Your task to perform on an android device: When is my next appointment? Image 0: 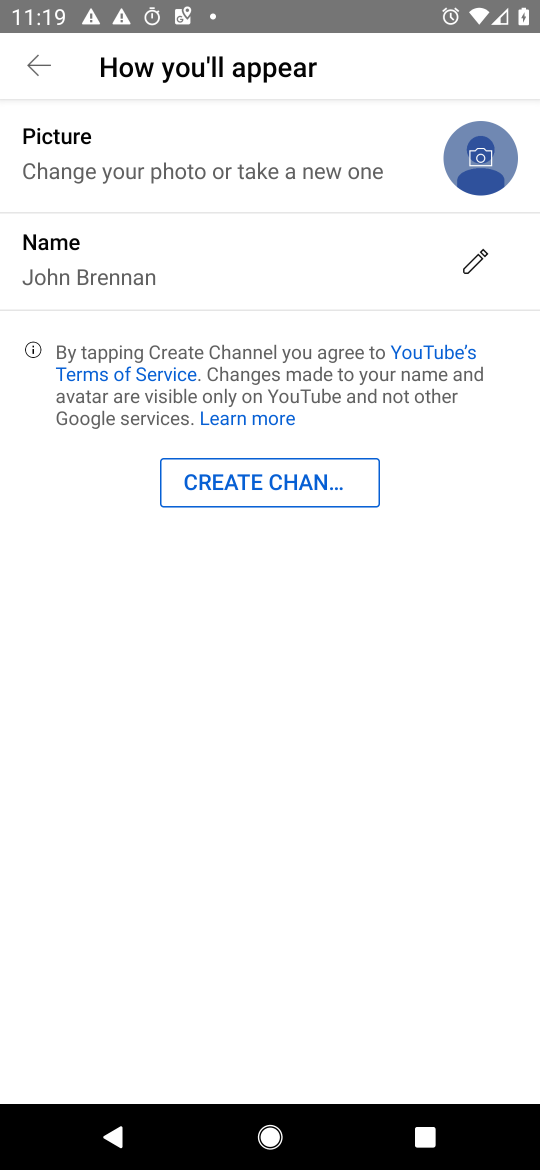
Step 0: drag from (252, 728) to (288, 415)
Your task to perform on an android device: When is my next appointment? Image 1: 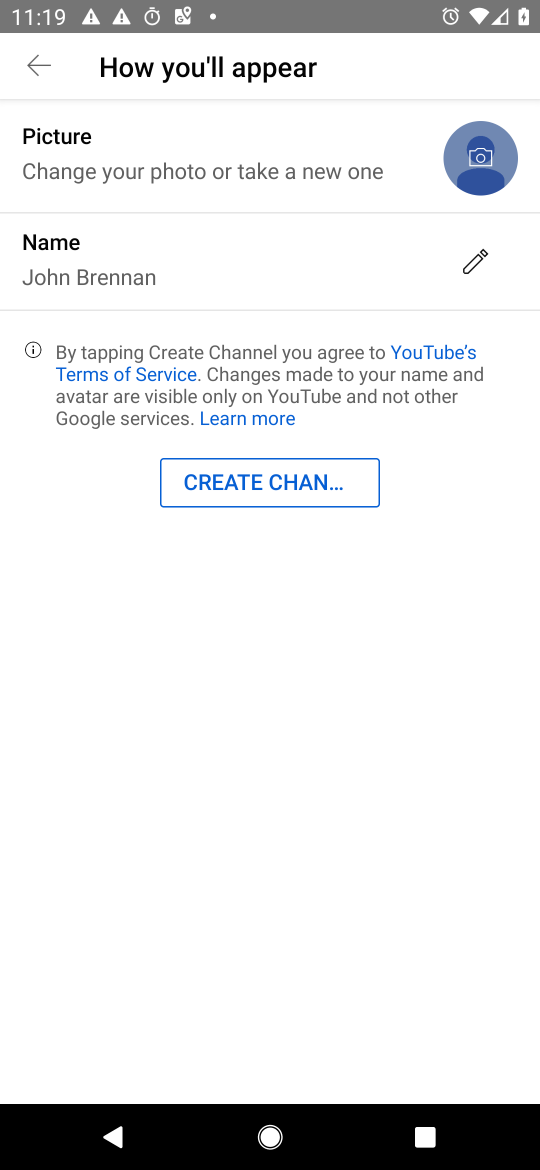
Step 1: drag from (300, 345) to (311, 987)
Your task to perform on an android device: When is my next appointment? Image 2: 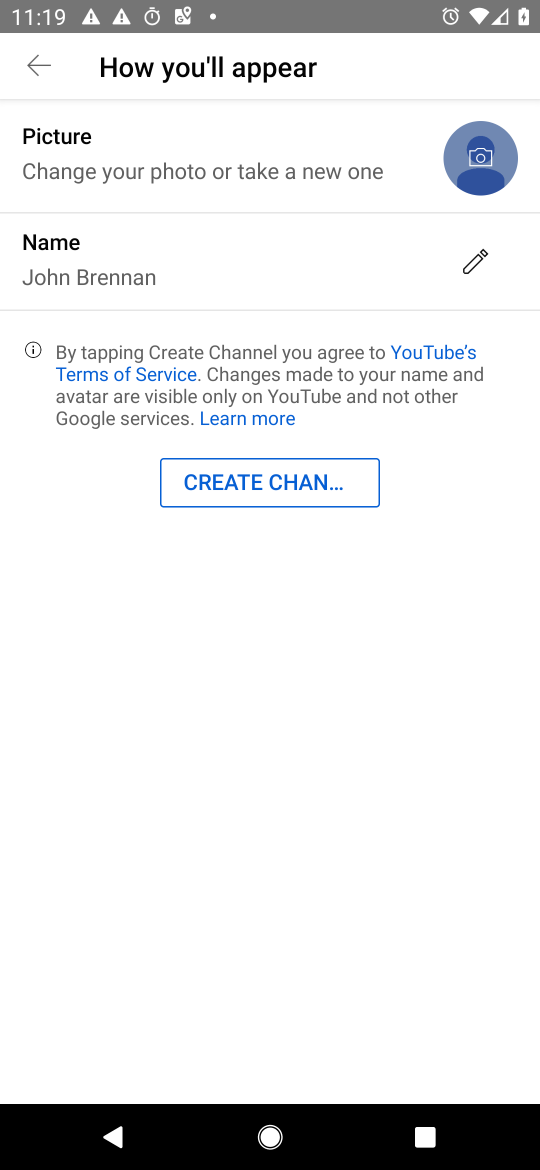
Step 2: drag from (220, 570) to (360, 243)
Your task to perform on an android device: When is my next appointment? Image 3: 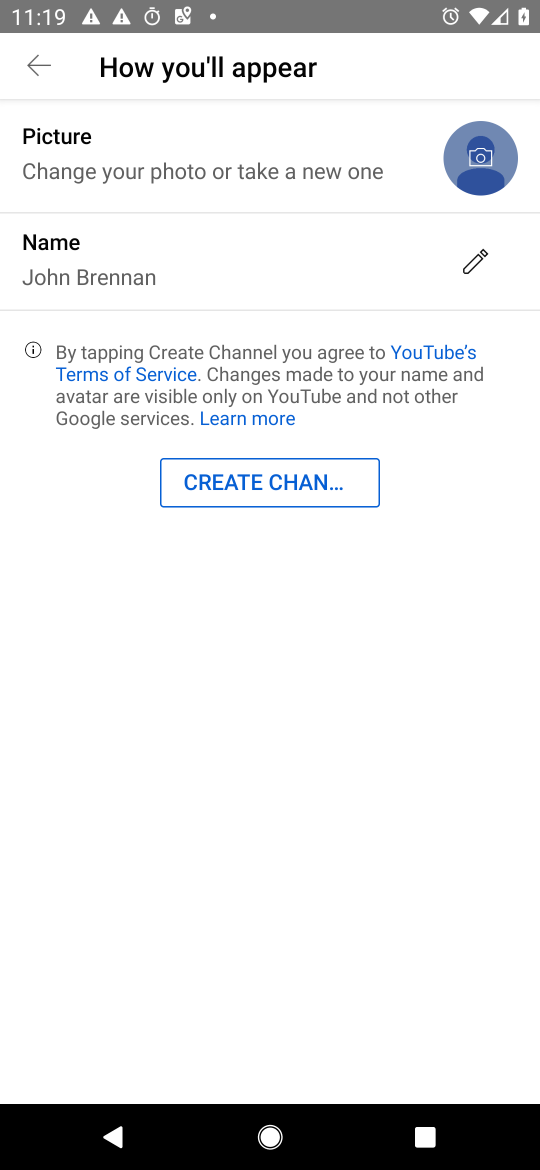
Step 3: drag from (287, 384) to (188, 1169)
Your task to perform on an android device: When is my next appointment? Image 4: 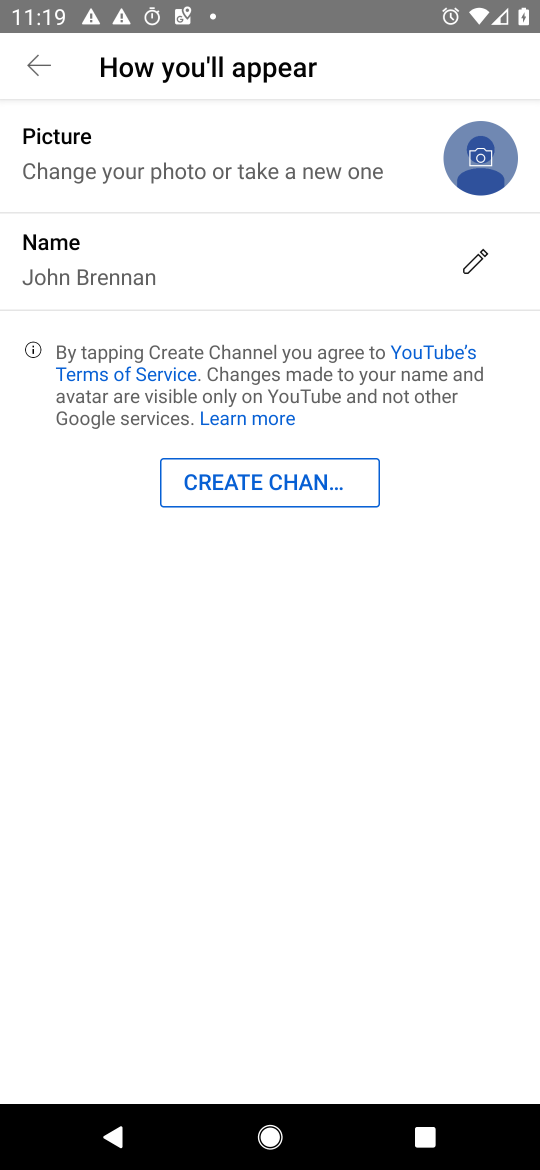
Step 4: press home button
Your task to perform on an android device: When is my next appointment? Image 5: 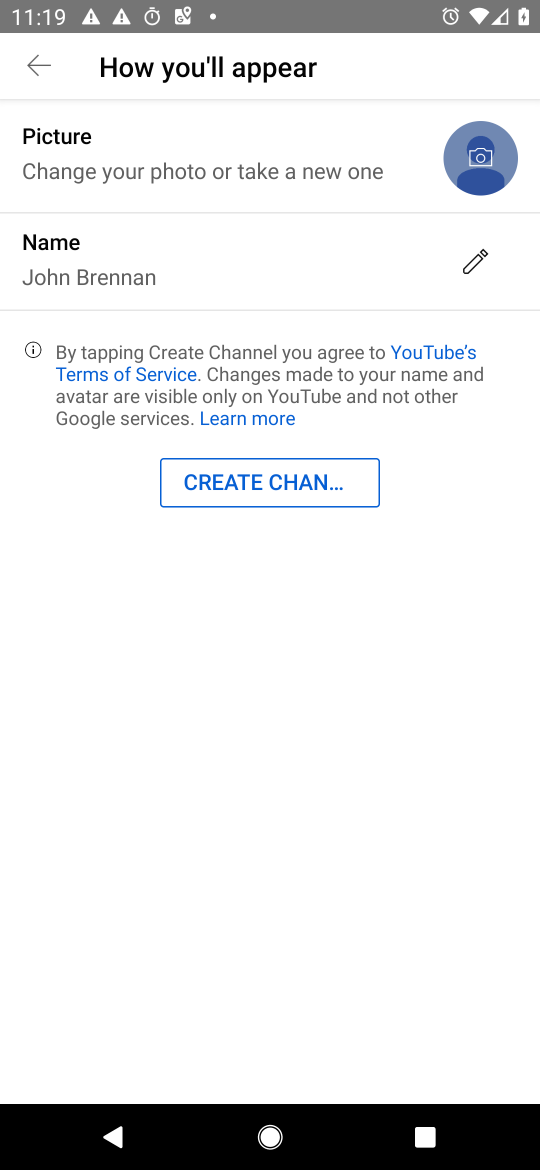
Step 5: drag from (260, 942) to (326, 360)
Your task to perform on an android device: When is my next appointment? Image 6: 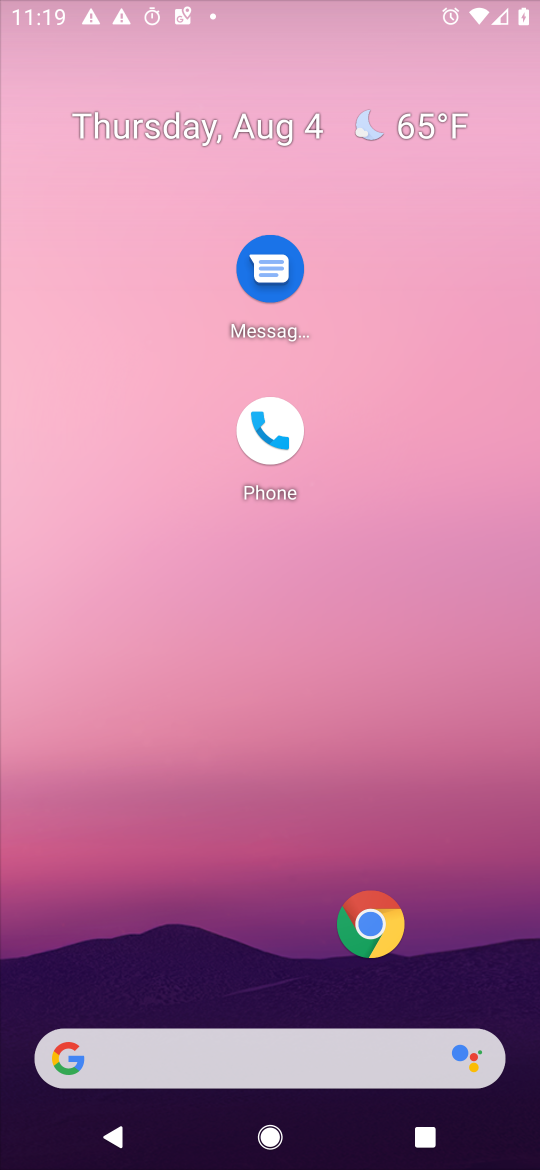
Step 6: drag from (260, 699) to (371, 226)
Your task to perform on an android device: When is my next appointment? Image 7: 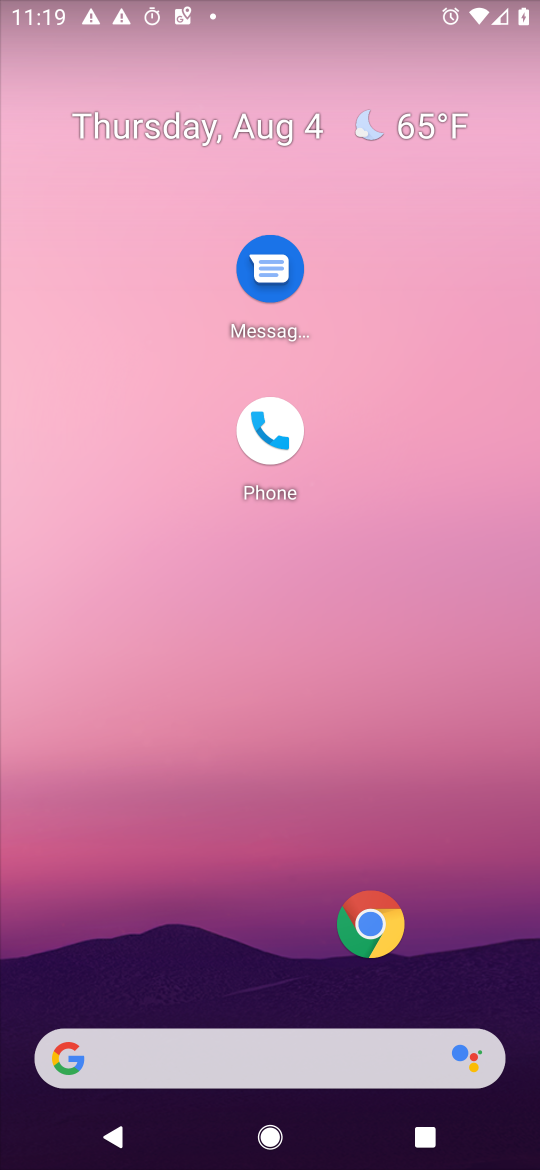
Step 7: drag from (287, 845) to (366, 229)
Your task to perform on an android device: When is my next appointment? Image 8: 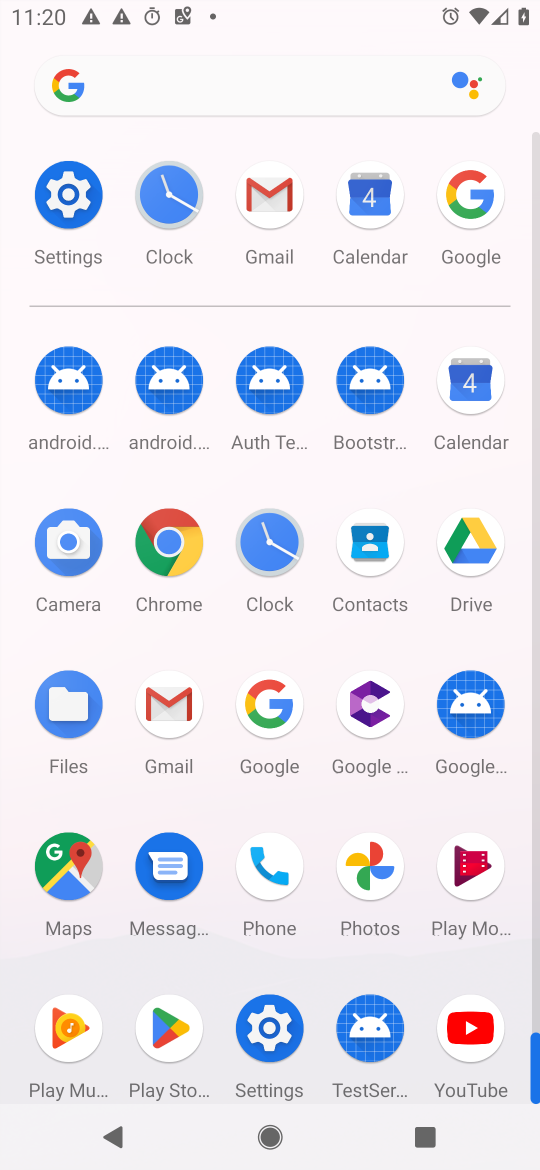
Step 8: drag from (322, 950) to (371, 369)
Your task to perform on an android device: When is my next appointment? Image 9: 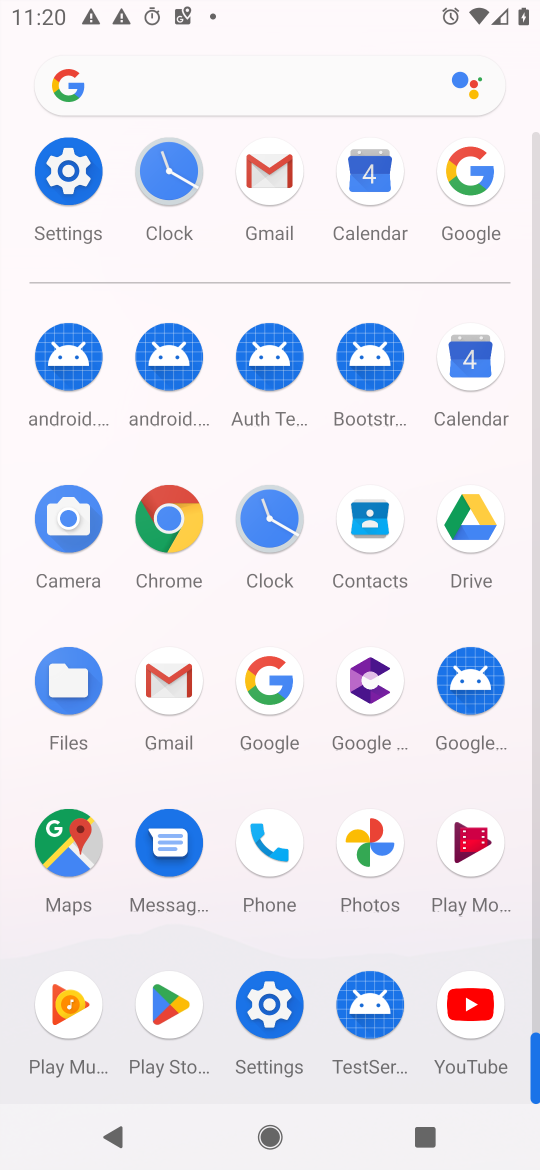
Step 9: click (465, 359)
Your task to perform on an android device: When is my next appointment? Image 10: 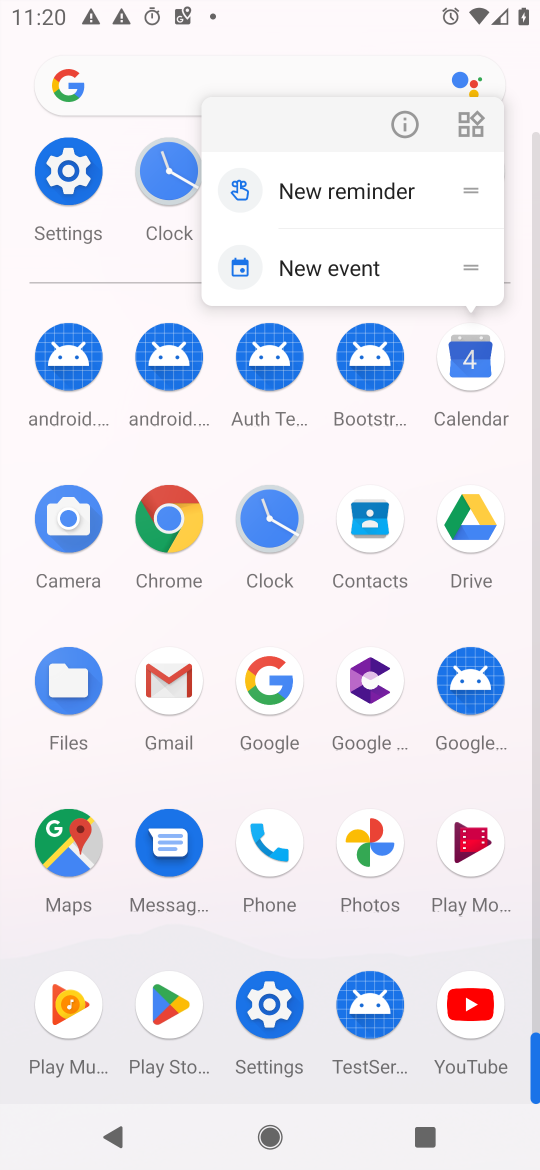
Step 10: click (397, 91)
Your task to perform on an android device: When is my next appointment? Image 11: 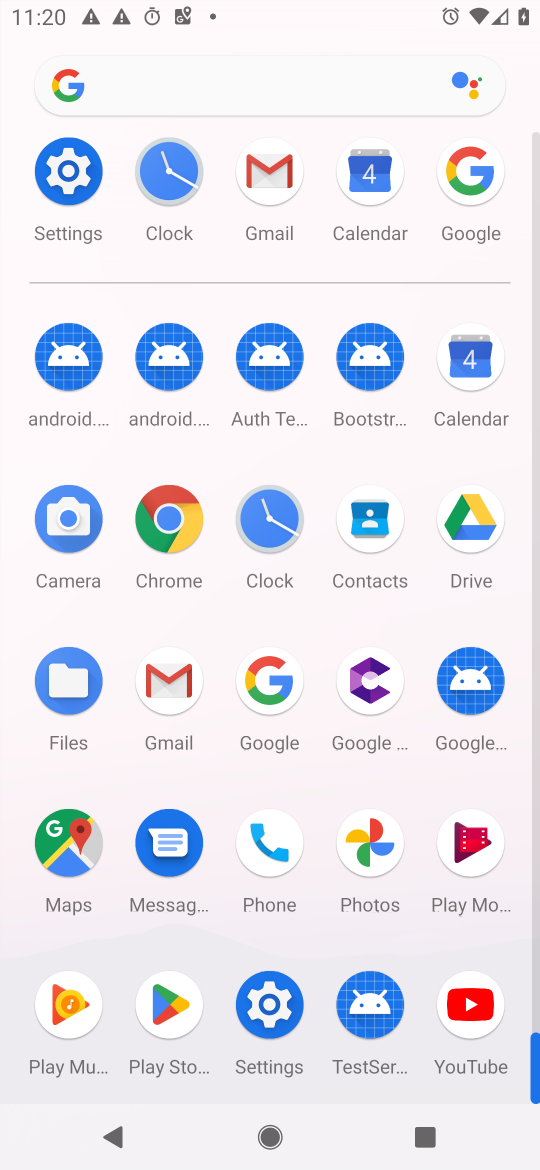
Step 11: click (462, 354)
Your task to perform on an android device: When is my next appointment? Image 12: 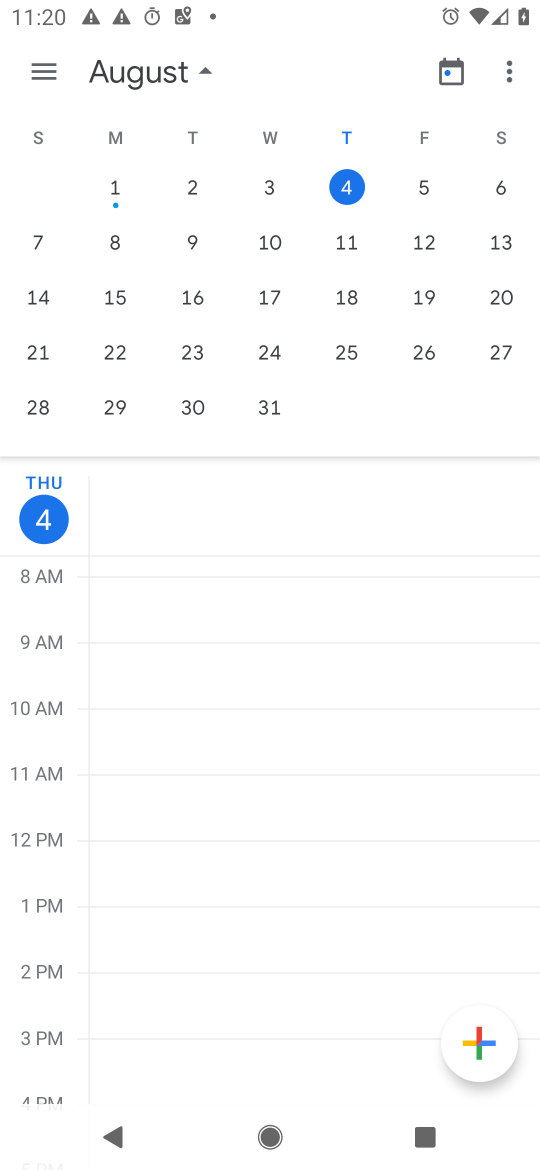
Step 12: click (345, 191)
Your task to perform on an android device: When is my next appointment? Image 13: 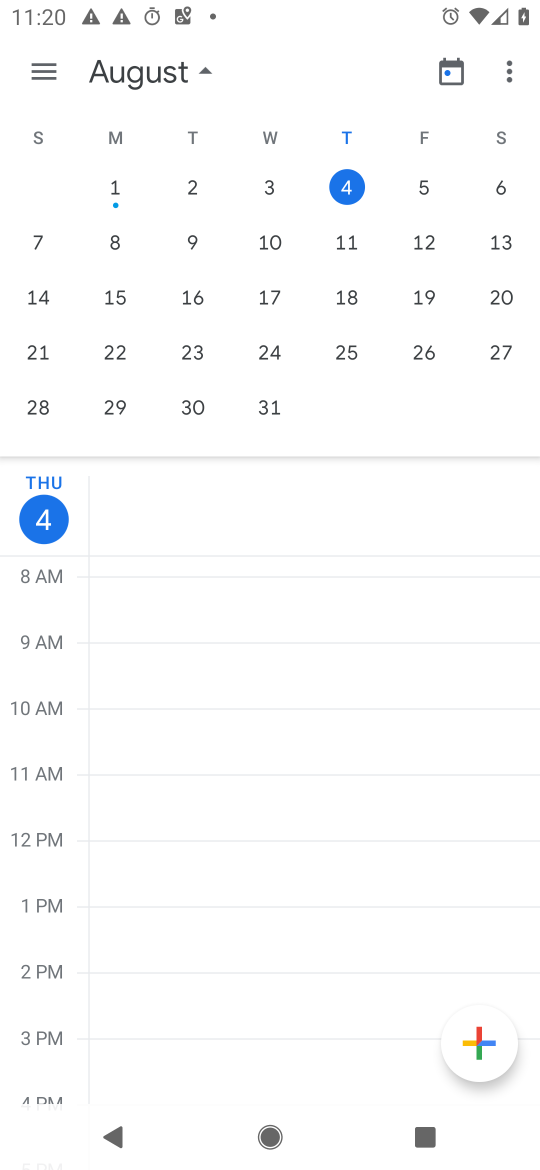
Step 13: click (355, 190)
Your task to perform on an android device: When is my next appointment? Image 14: 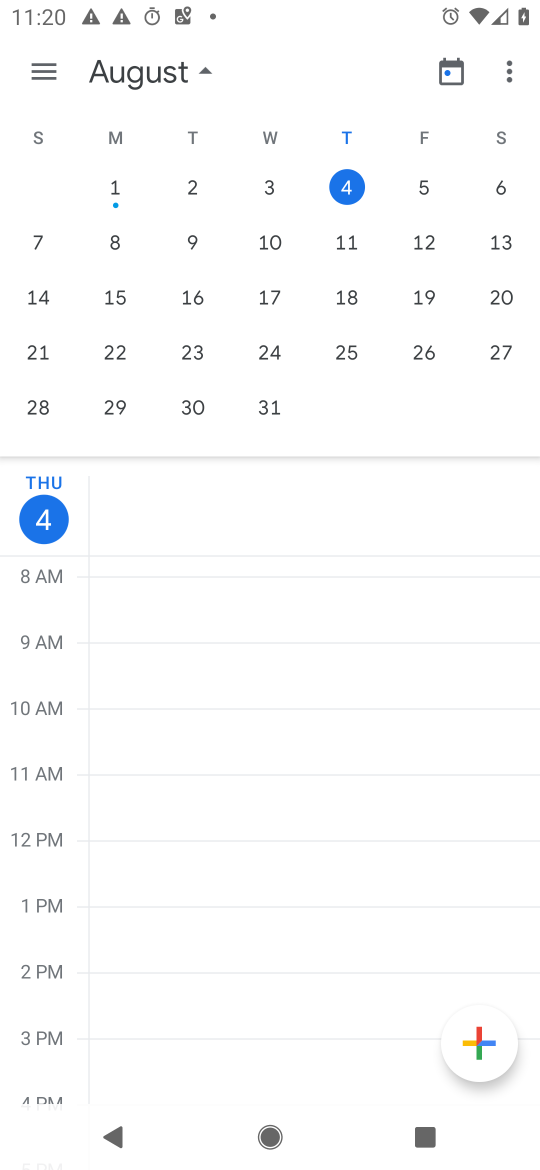
Step 14: click (468, 54)
Your task to perform on an android device: When is my next appointment? Image 15: 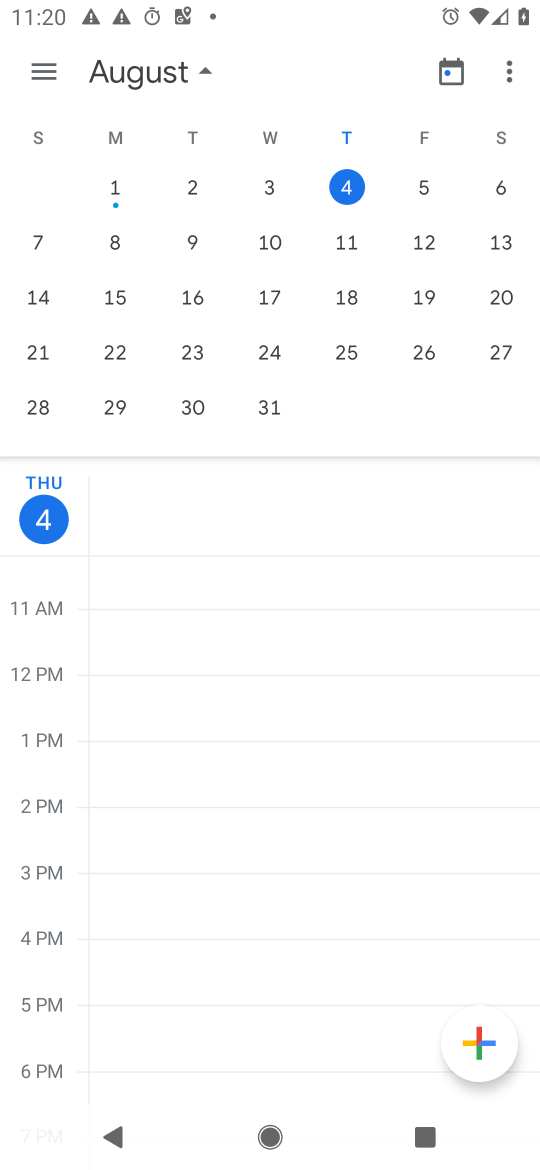
Step 15: click (54, 61)
Your task to perform on an android device: When is my next appointment? Image 16: 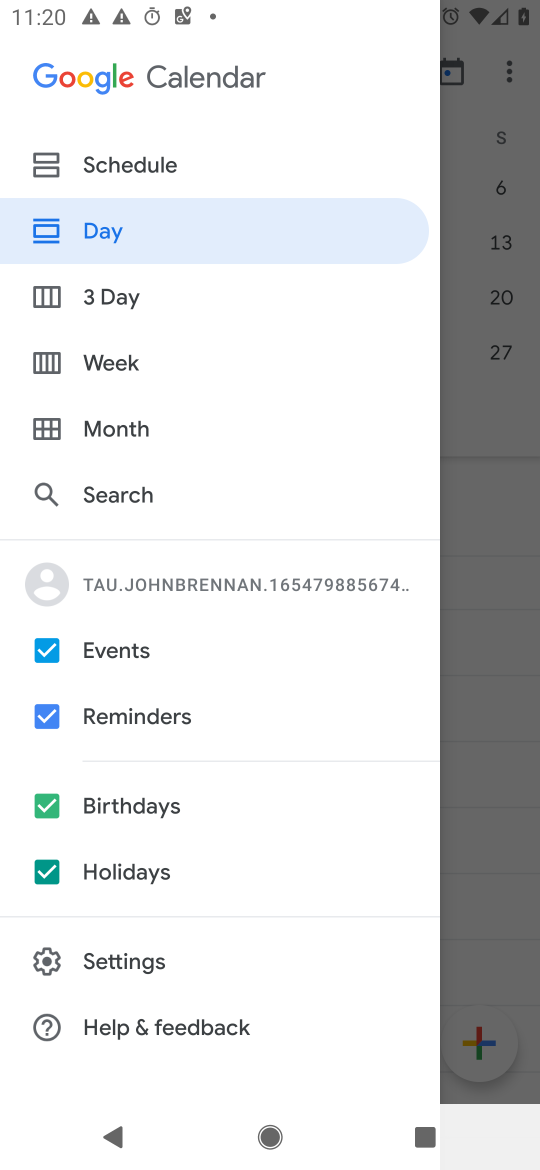
Step 16: click (108, 159)
Your task to perform on an android device: When is my next appointment? Image 17: 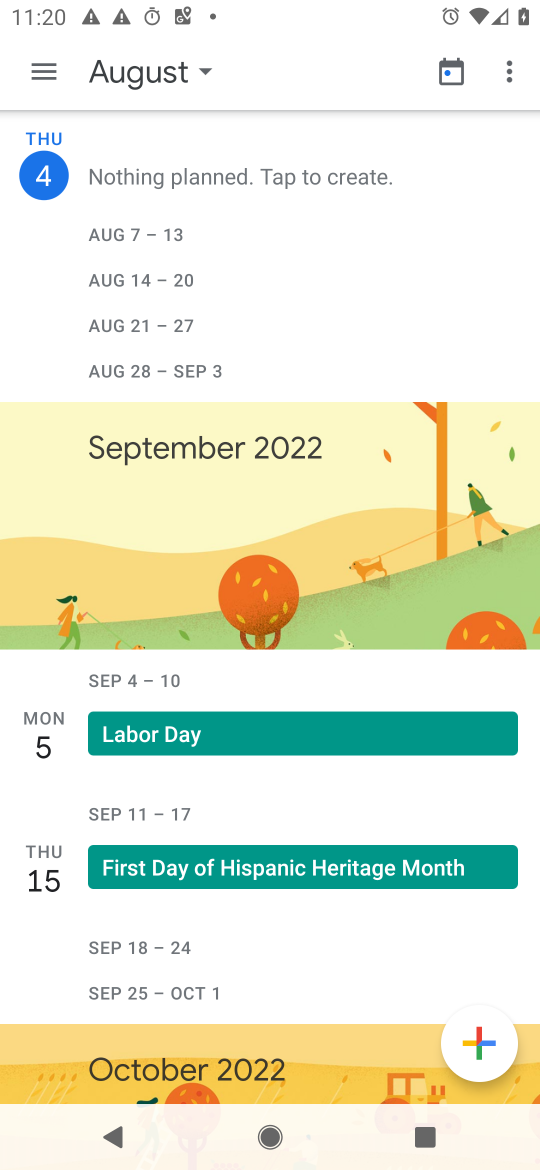
Step 17: click (464, 81)
Your task to perform on an android device: When is my next appointment? Image 18: 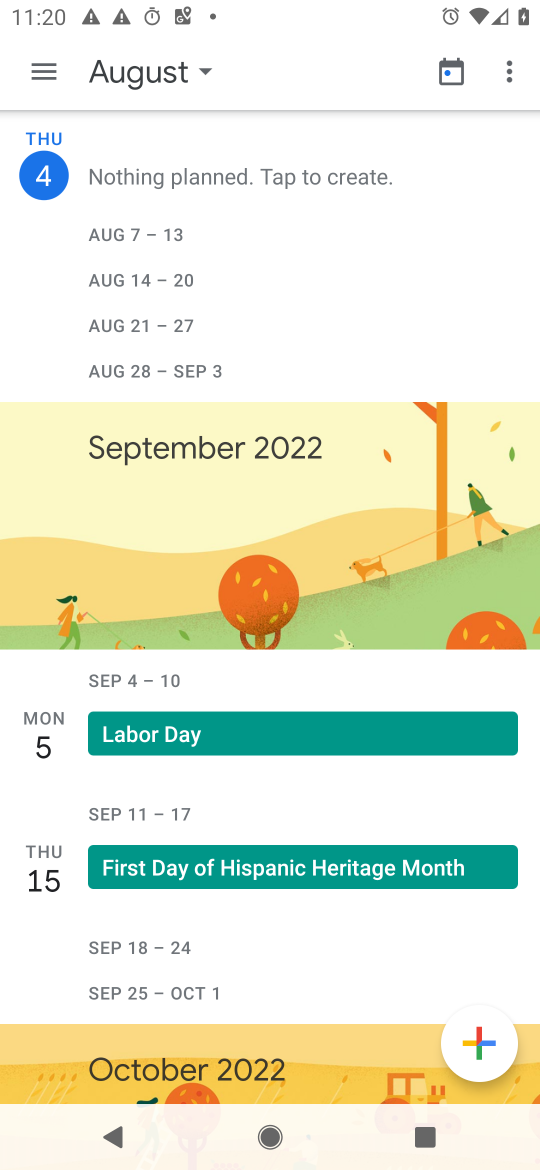
Step 18: task complete